Your task to perform on an android device: Open Google Chrome and click the shortcut for Amazon.com Image 0: 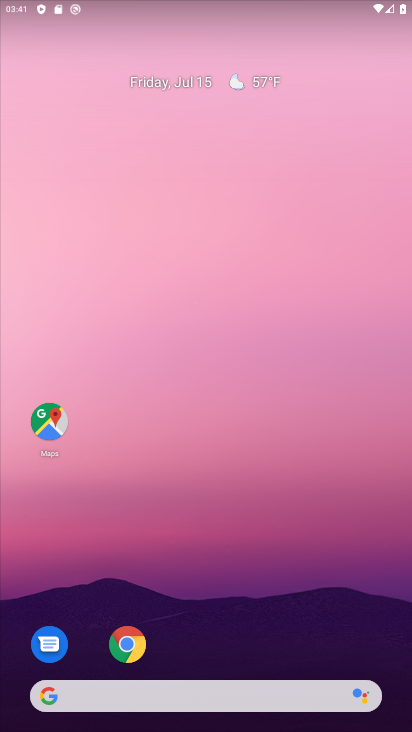
Step 0: click (131, 643)
Your task to perform on an android device: Open Google Chrome and click the shortcut for Amazon.com Image 1: 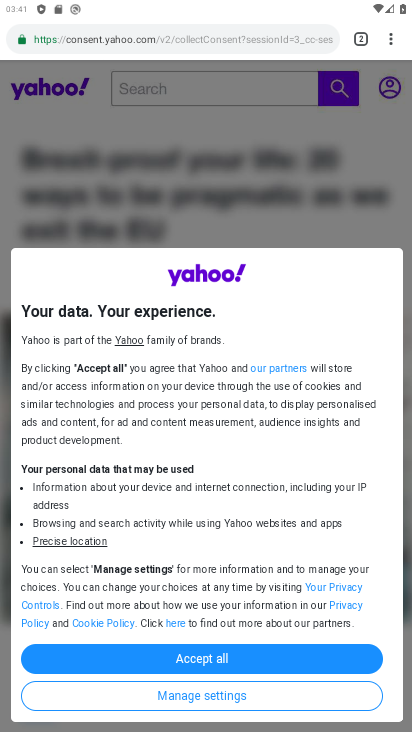
Step 1: click (387, 32)
Your task to perform on an android device: Open Google Chrome and click the shortcut for Amazon.com Image 2: 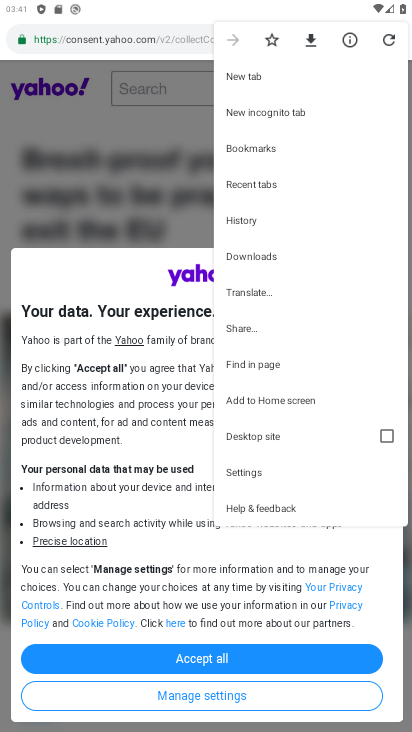
Step 2: click (269, 83)
Your task to perform on an android device: Open Google Chrome and click the shortcut for Amazon.com Image 3: 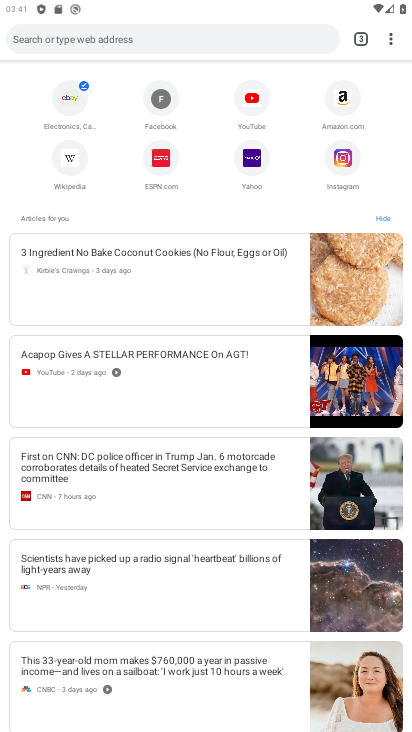
Step 3: click (347, 98)
Your task to perform on an android device: Open Google Chrome and click the shortcut for Amazon.com Image 4: 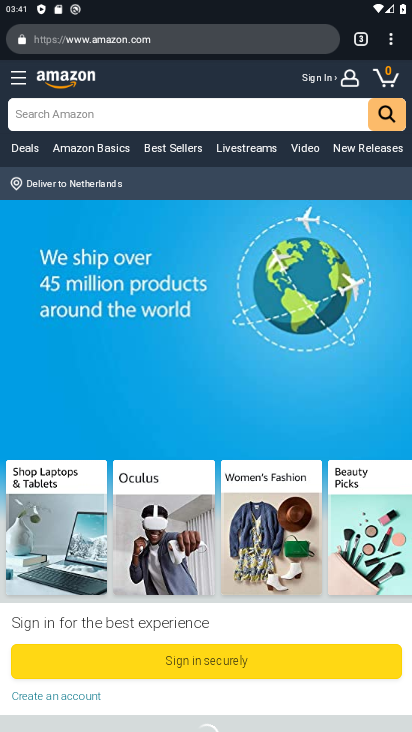
Step 4: task complete